Your task to perform on an android device: refresh tabs in the chrome app Image 0: 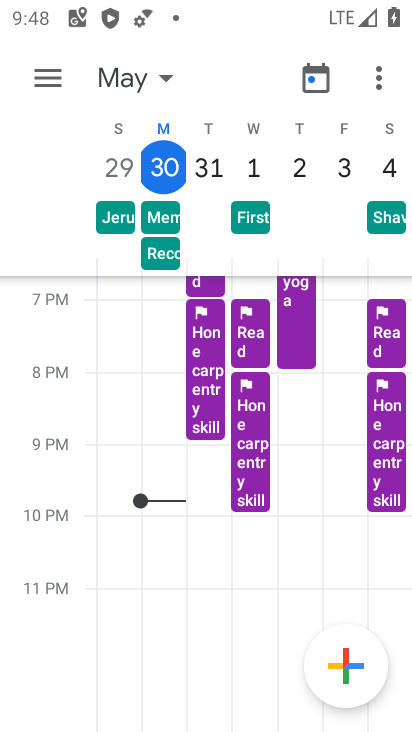
Step 0: press home button
Your task to perform on an android device: refresh tabs in the chrome app Image 1: 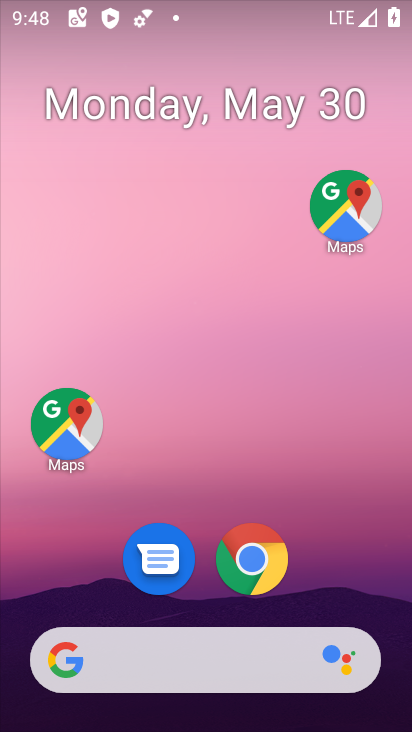
Step 1: click (251, 557)
Your task to perform on an android device: refresh tabs in the chrome app Image 2: 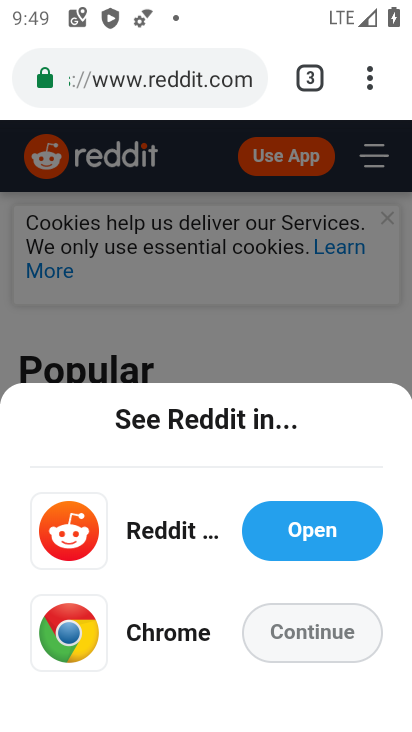
Step 2: click (373, 69)
Your task to perform on an android device: refresh tabs in the chrome app Image 3: 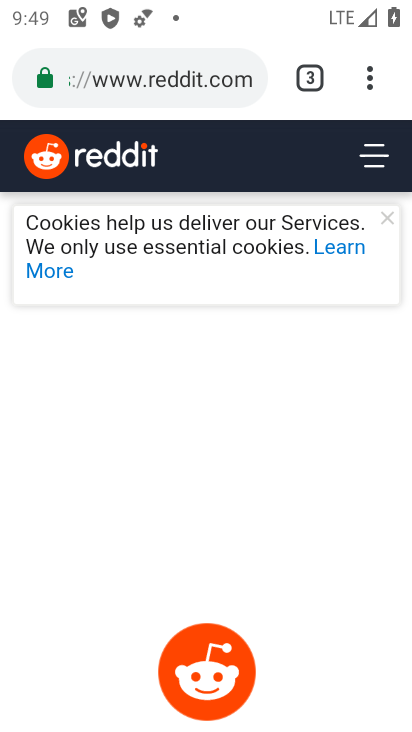
Step 3: task complete